Your task to perform on an android device: Open internet settings Image 0: 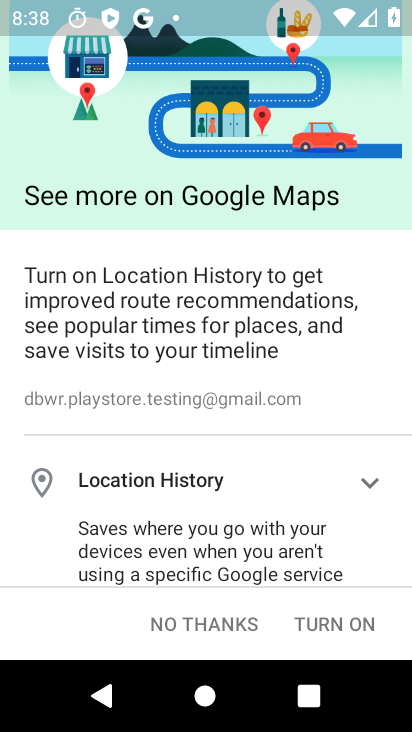
Step 0: press home button
Your task to perform on an android device: Open internet settings Image 1: 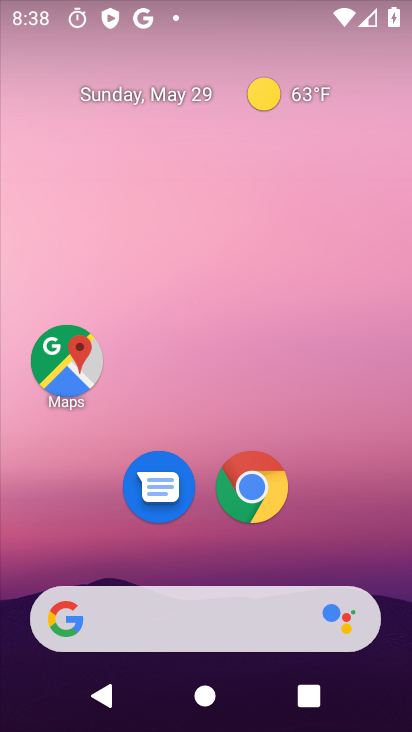
Step 1: drag from (317, 542) to (256, 152)
Your task to perform on an android device: Open internet settings Image 2: 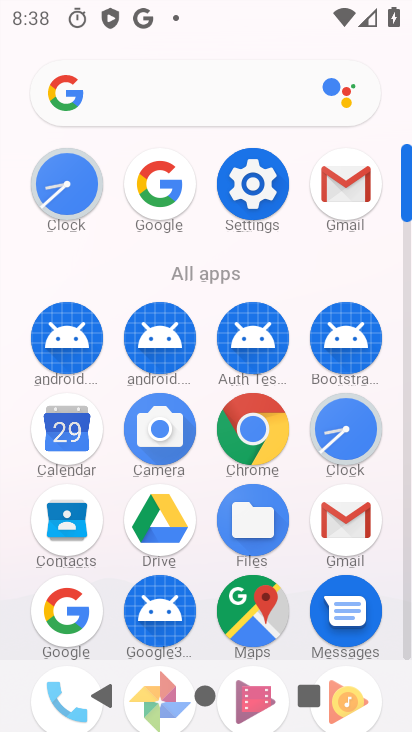
Step 2: click (252, 184)
Your task to perform on an android device: Open internet settings Image 3: 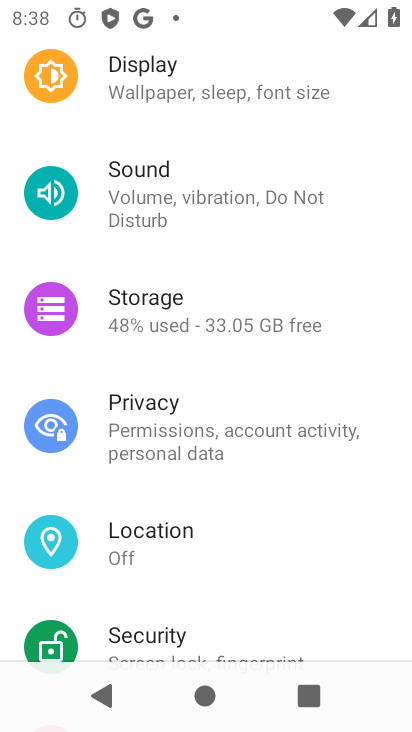
Step 3: drag from (232, 483) to (243, 386)
Your task to perform on an android device: Open internet settings Image 4: 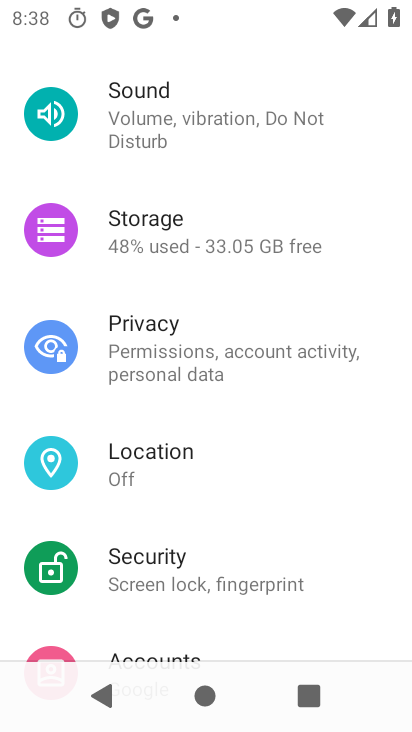
Step 4: drag from (265, 281) to (260, 422)
Your task to perform on an android device: Open internet settings Image 5: 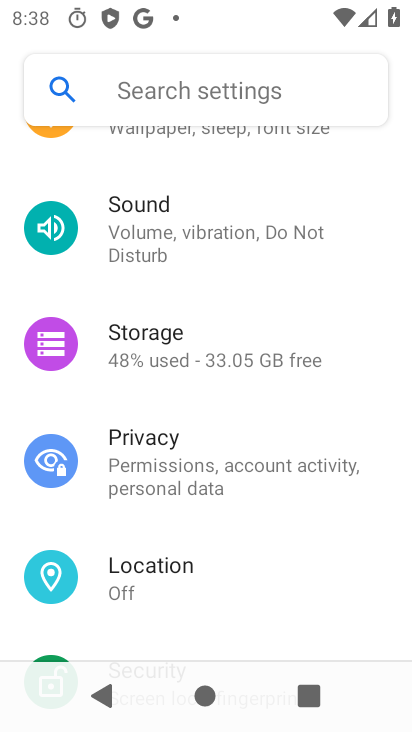
Step 5: drag from (260, 270) to (268, 428)
Your task to perform on an android device: Open internet settings Image 6: 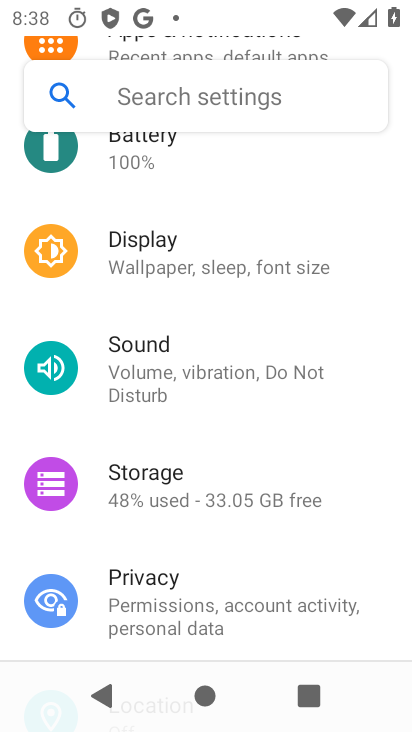
Step 6: drag from (256, 220) to (283, 379)
Your task to perform on an android device: Open internet settings Image 7: 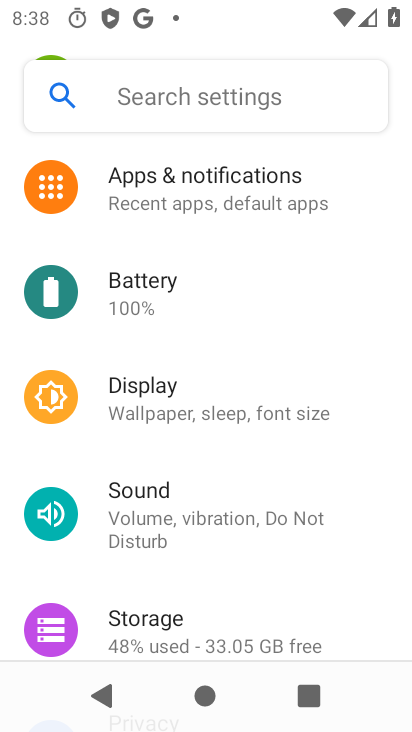
Step 7: drag from (301, 159) to (301, 421)
Your task to perform on an android device: Open internet settings Image 8: 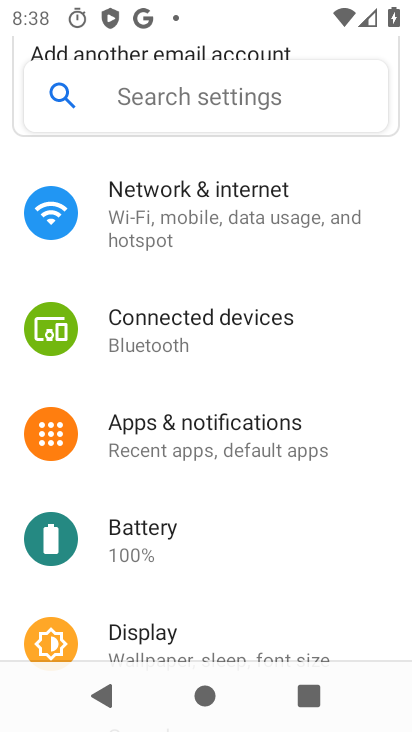
Step 8: click (274, 226)
Your task to perform on an android device: Open internet settings Image 9: 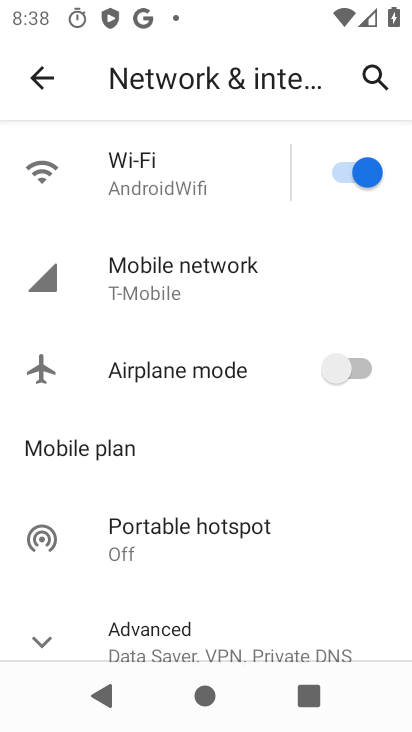
Step 9: click (191, 206)
Your task to perform on an android device: Open internet settings Image 10: 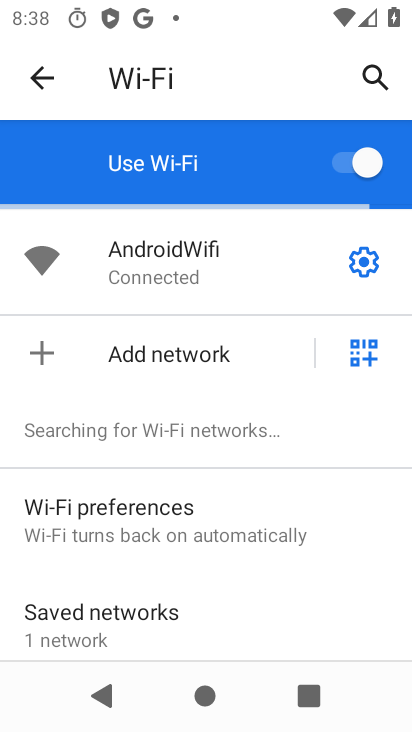
Step 10: task complete